Your task to perform on an android device: What's the weather today? Image 0: 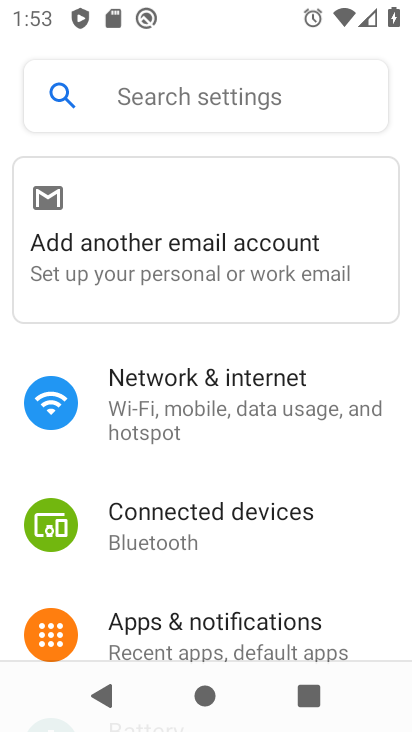
Step 0: press home button
Your task to perform on an android device: What's the weather today? Image 1: 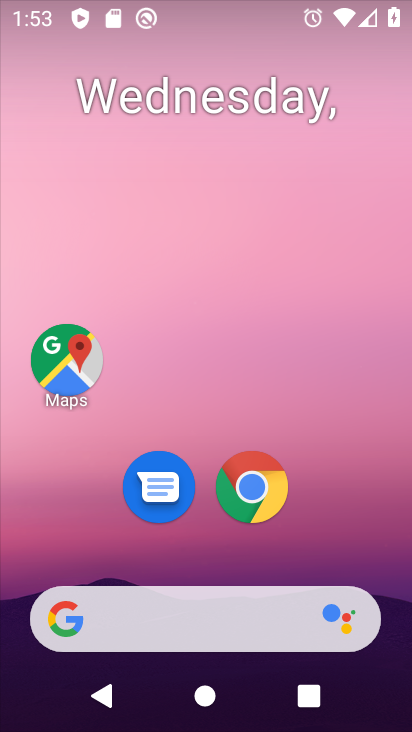
Step 1: drag from (385, 653) to (185, 61)
Your task to perform on an android device: What's the weather today? Image 2: 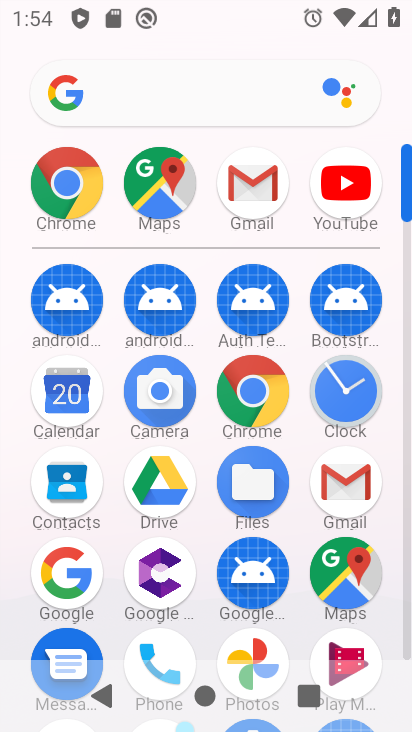
Step 2: click (59, 568)
Your task to perform on an android device: What's the weather today? Image 3: 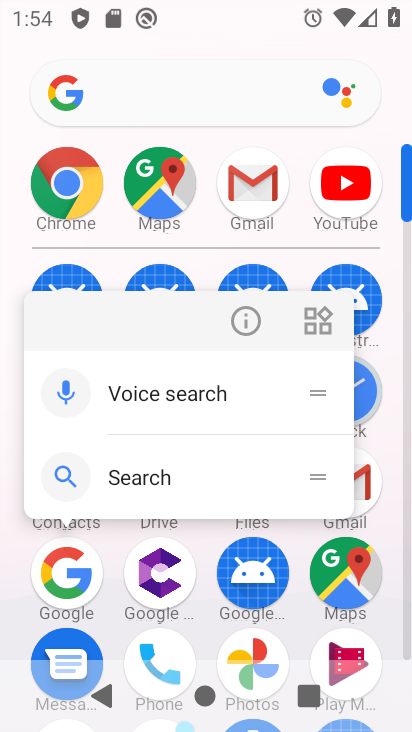
Step 3: click (59, 568)
Your task to perform on an android device: What's the weather today? Image 4: 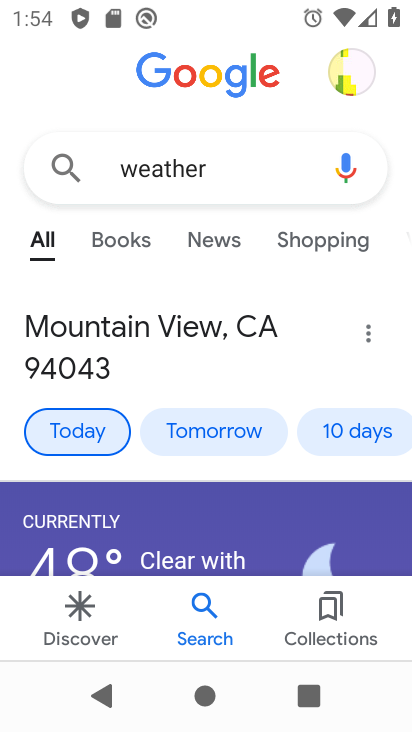
Step 4: task complete